Your task to perform on an android device: turn off location history Image 0: 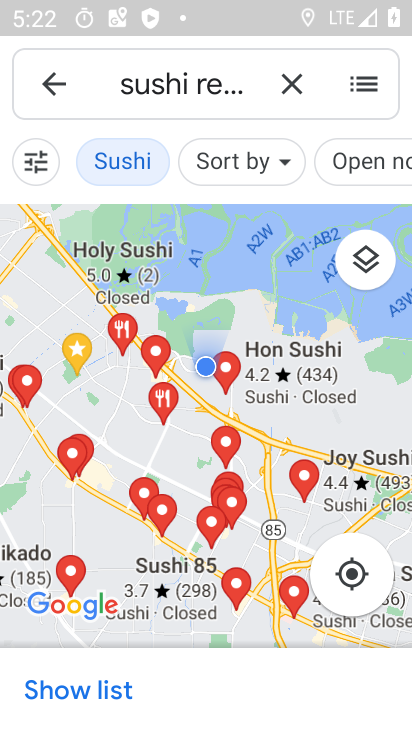
Step 0: press home button
Your task to perform on an android device: turn off location history Image 1: 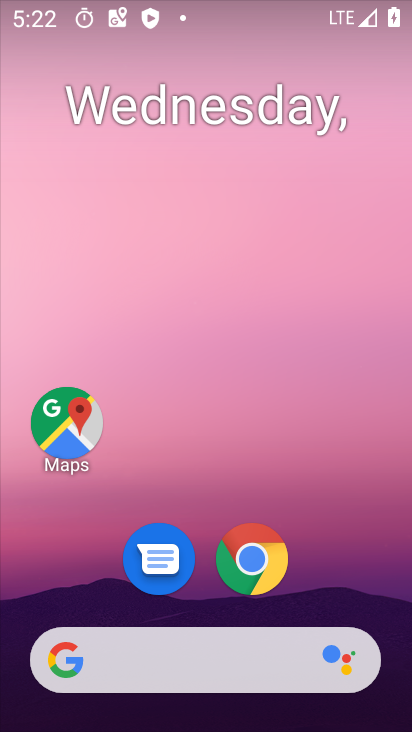
Step 1: drag from (328, 569) to (226, 177)
Your task to perform on an android device: turn off location history Image 2: 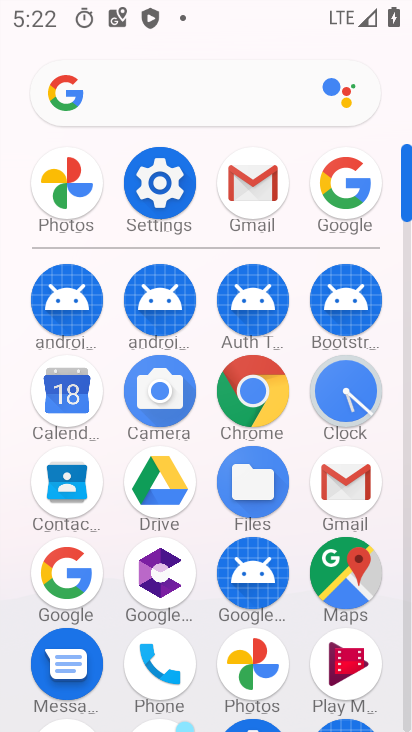
Step 2: click (160, 183)
Your task to perform on an android device: turn off location history Image 3: 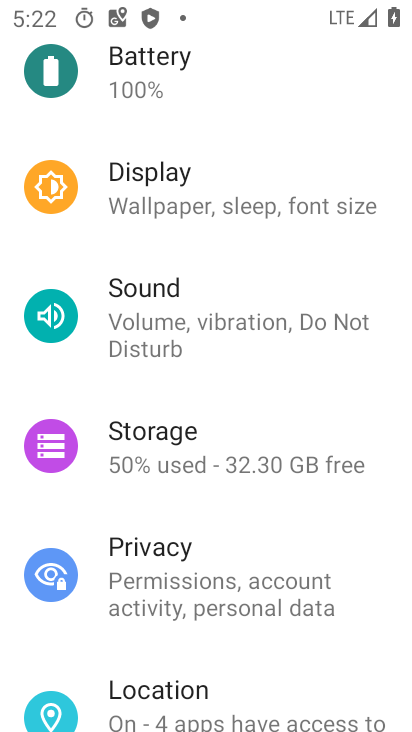
Step 3: click (229, 693)
Your task to perform on an android device: turn off location history Image 4: 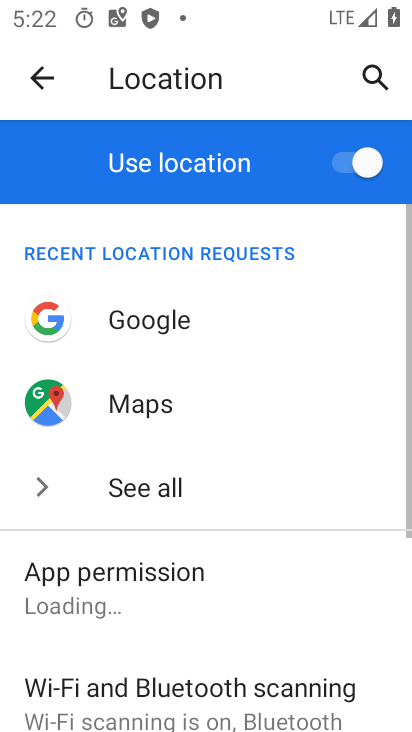
Step 4: drag from (273, 577) to (204, 173)
Your task to perform on an android device: turn off location history Image 5: 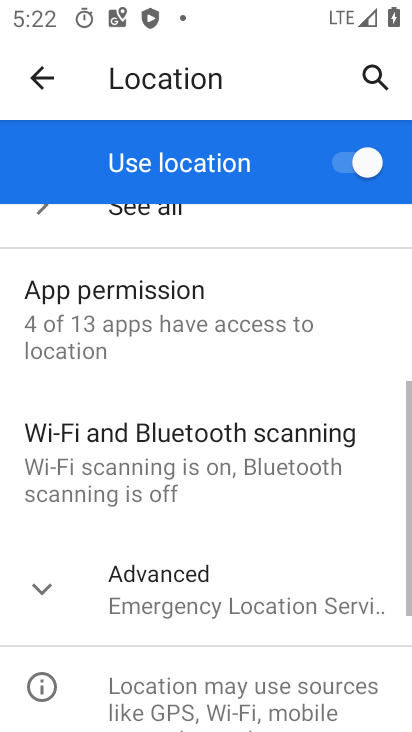
Step 5: click (269, 602)
Your task to perform on an android device: turn off location history Image 6: 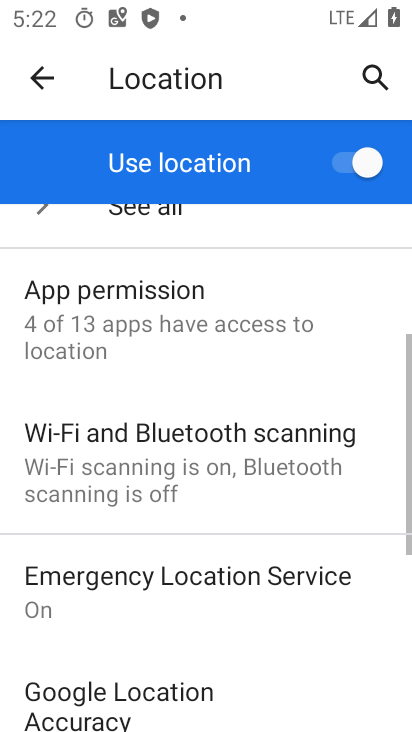
Step 6: drag from (263, 642) to (253, 274)
Your task to perform on an android device: turn off location history Image 7: 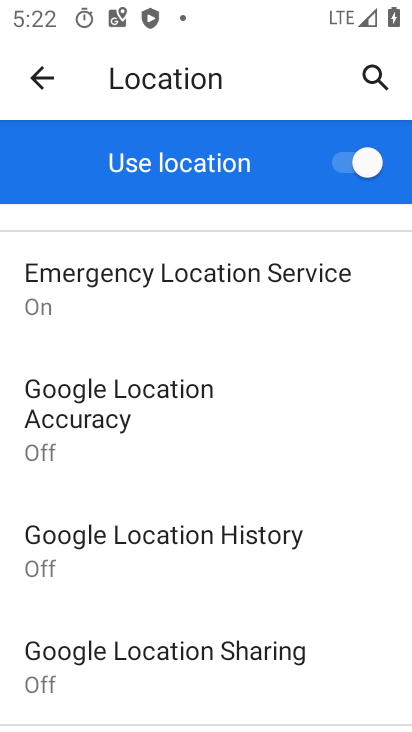
Step 7: click (246, 519)
Your task to perform on an android device: turn off location history Image 8: 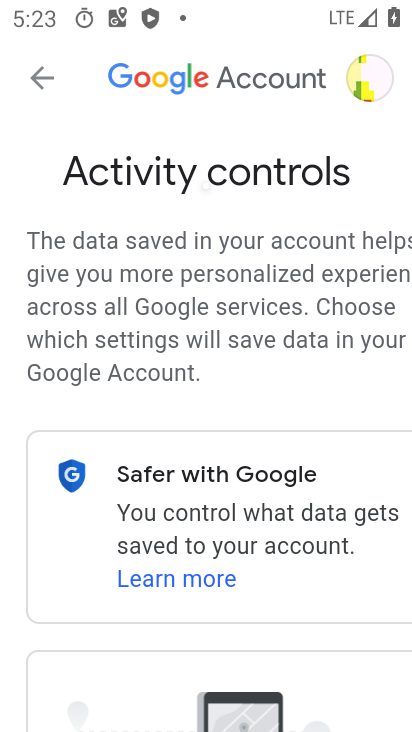
Step 8: task complete